Your task to perform on an android device: turn off notifications in google photos Image 0: 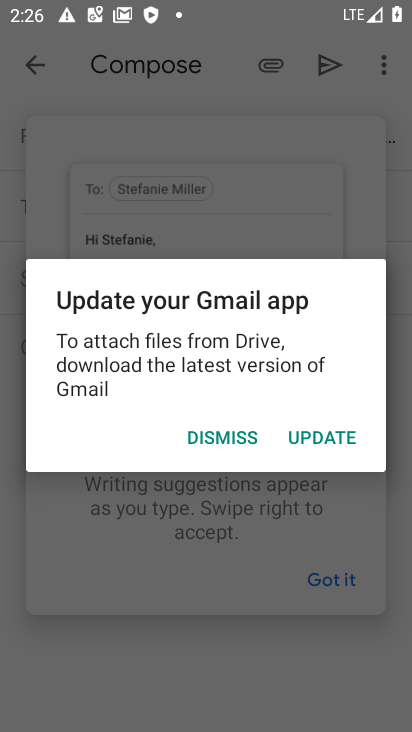
Step 0: press home button
Your task to perform on an android device: turn off notifications in google photos Image 1: 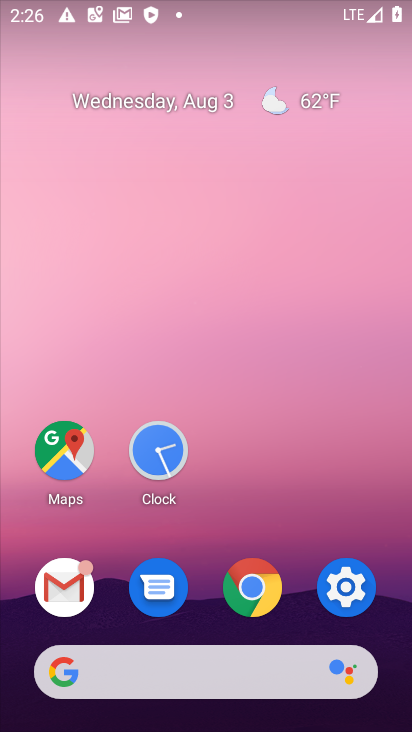
Step 1: drag from (295, 511) to (264, 37)
Your task to perform on an android device: turn off notifications in google photos Image 2: 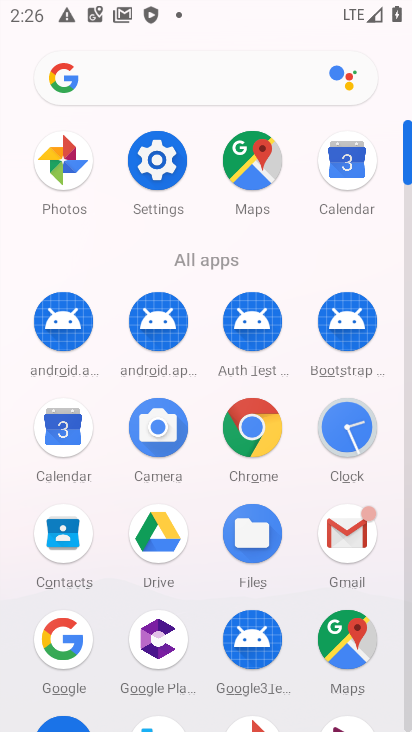
Step 2: click (64, 158)
Your task to perform on an android device: turn off notifications in google photos Image 3: 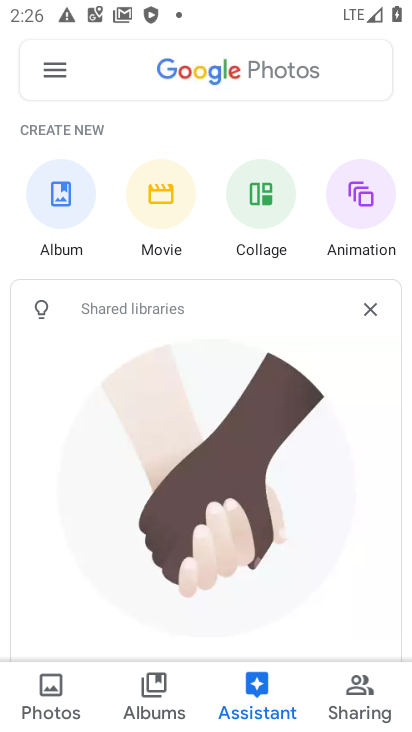
Step 3: click (43, 68)
Your task to perform on an android device: turn off notifications in google photos Image 4: 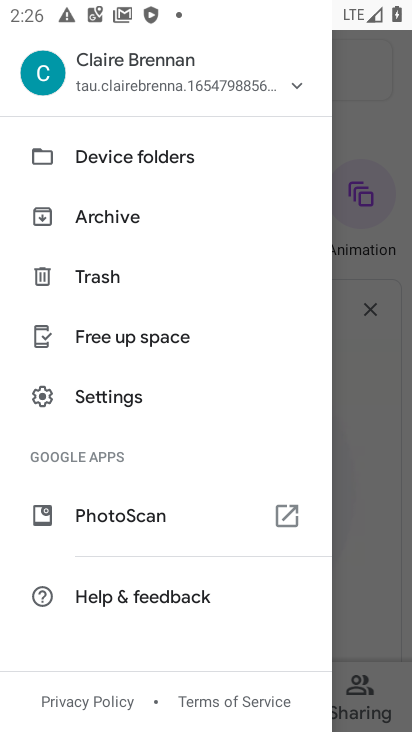
Step 4: click (97, 404)
Your task to perform on an android device: turn off notifications in google photos Image 5: 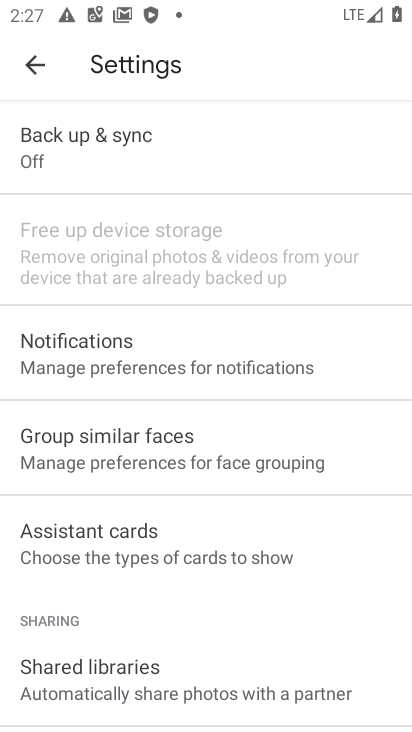
Step 5: click (91, 351)
Your task to perform on an android device: turn off notifications in google photos Image 6: 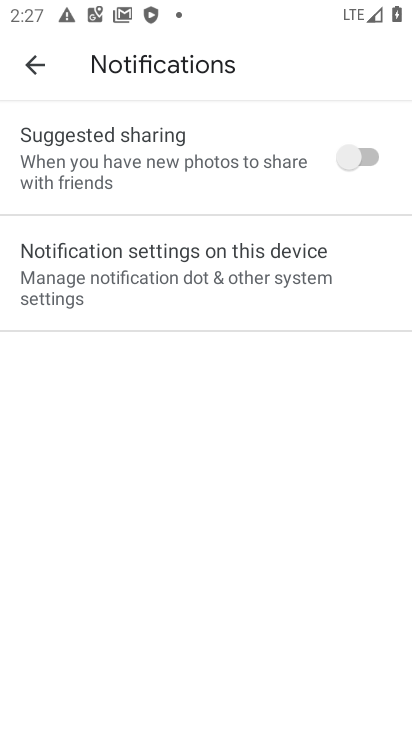
Step 6: click (199, 249)
Your task to perform on an android device: turn off notifications in google photos Image 7: 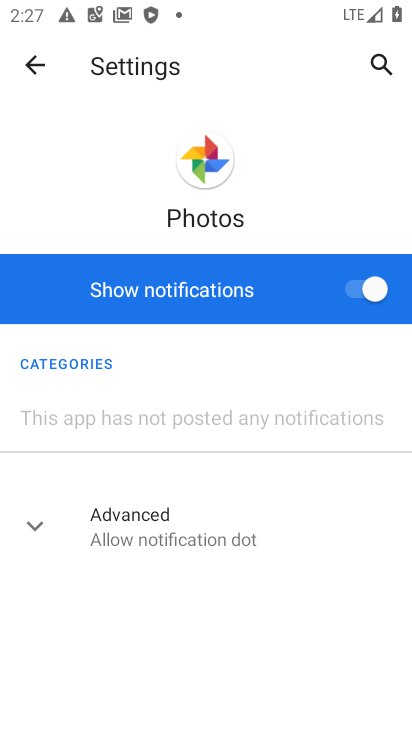
Step 7: click (363, 284)
Your task to perform on an android device: turn off notifications in google photos Image 8: 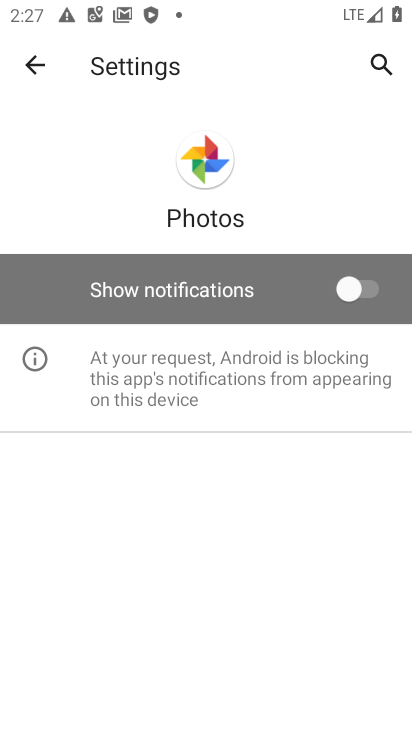
Step 8: task complete